Your task to perform on an android device: Go to ESPN.com Image 0: 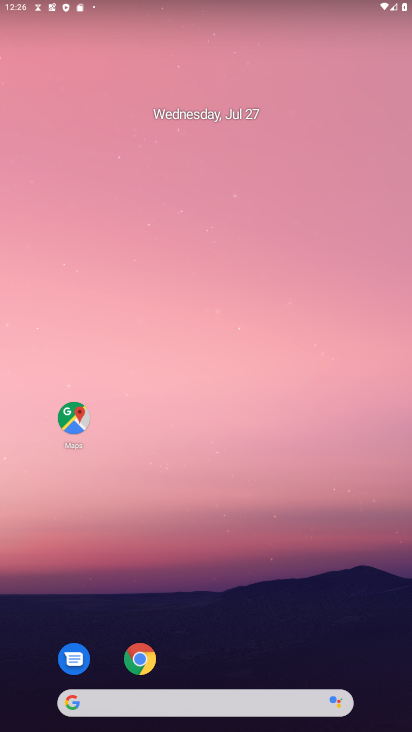
Step 0: press home button
Your task to perform on an android device: Go to ESPN.com Image 1: 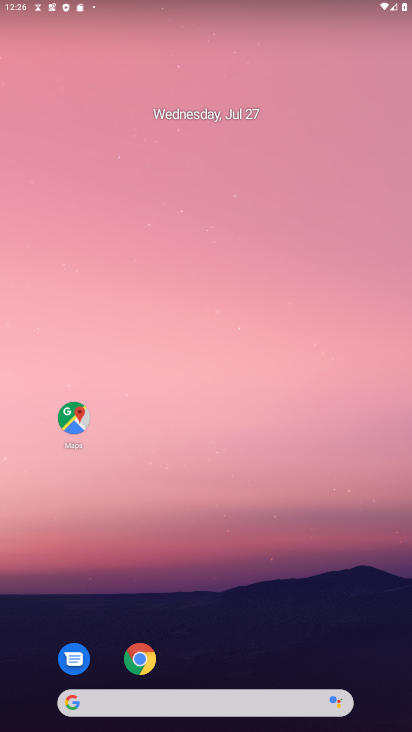
Step 1: click (140, 656)
Your task to perform on an android device: Go to ESPN.com Image 2: 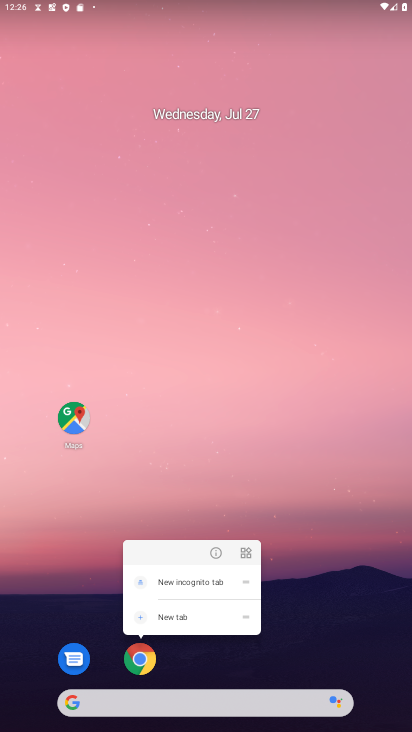
Step 2: click (136, 657)
Your task to perform on an android device: Go to ESPN.com Image 3: 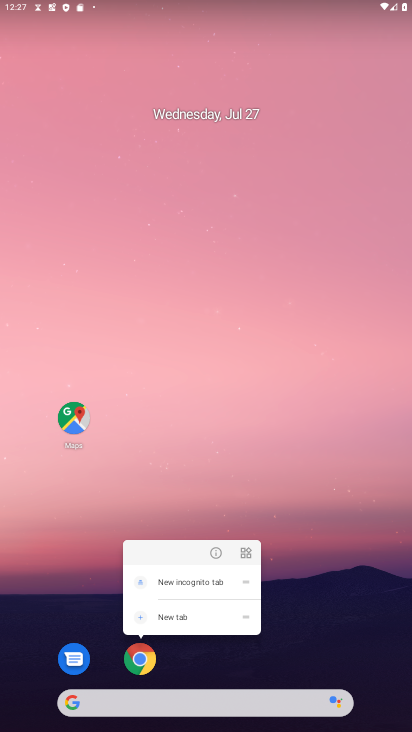
Step 3: click (144, 657)
Your task to perform on an android device: Go to ESPN.com Image 4: 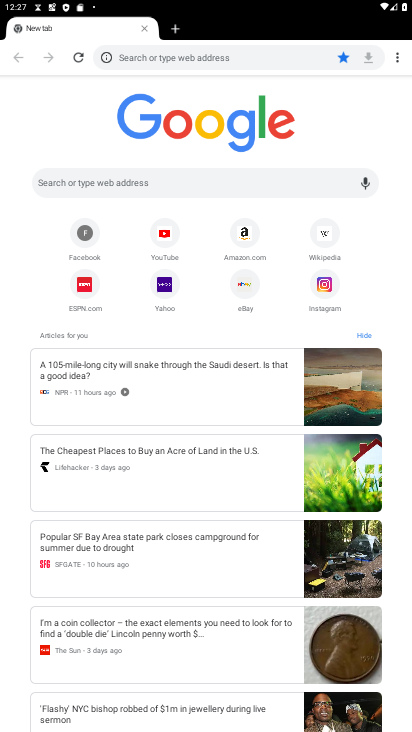
Step 4: click (85, 282)
Your task to perform on an android device: Go to ESPN.com Image 5: 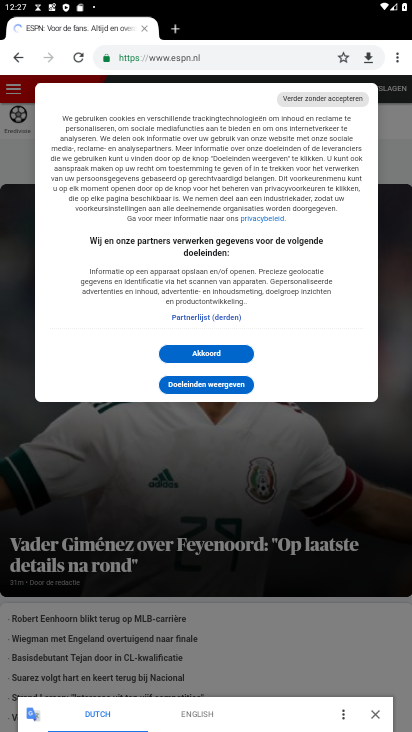
Step 5: click (204, 348)
Your task to perform on an android device: Go to ESPN.com Image 6: 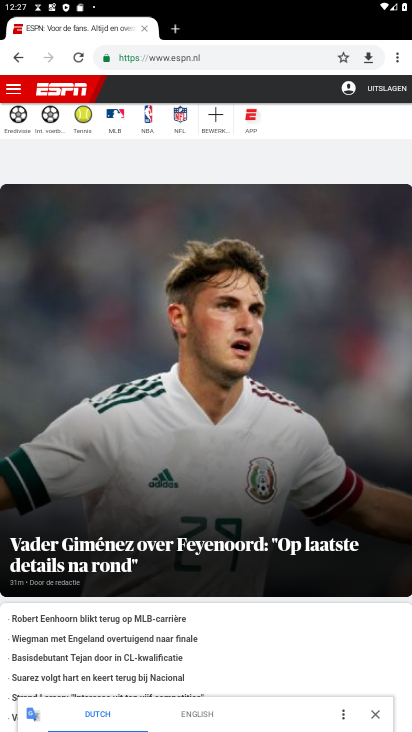
Step 6: task complete